Your task to perform on an android device: Go to Android settings Image 0: 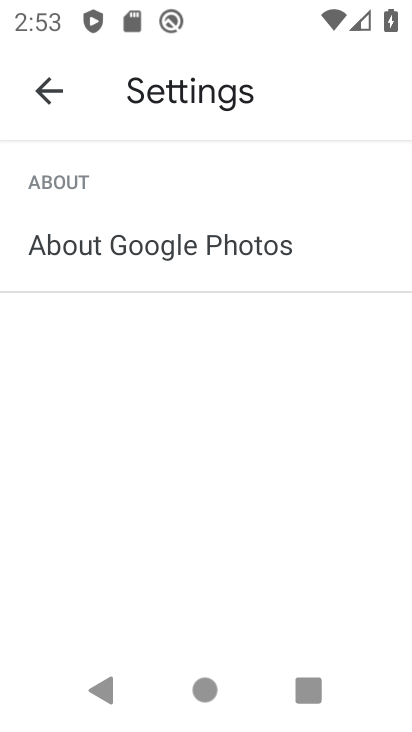
Step 0: press back button
Your task to perform on an android device: Go to Android settings Image 1: 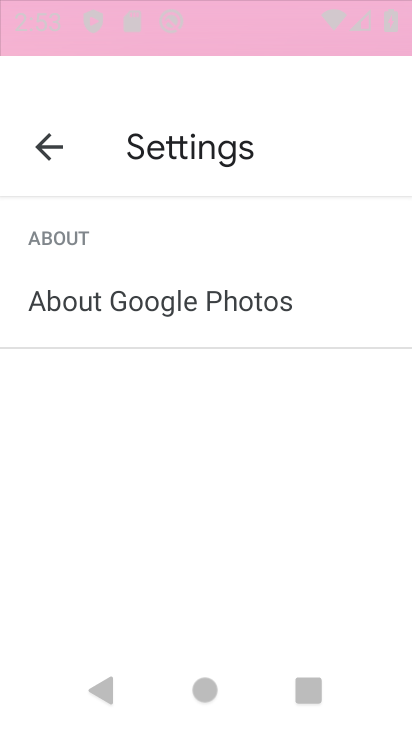
Step 1: press back button
Your task to perform on an android device: Go to Android settings Image 2: 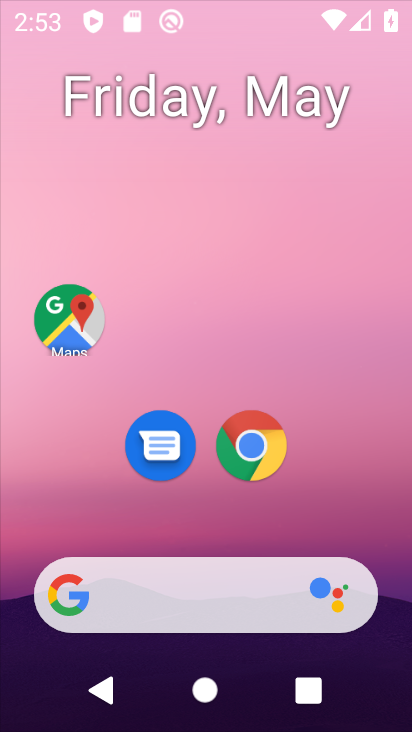
Step 2: press back button
Your task to perform on an android device: Go to Android settings Image 3: 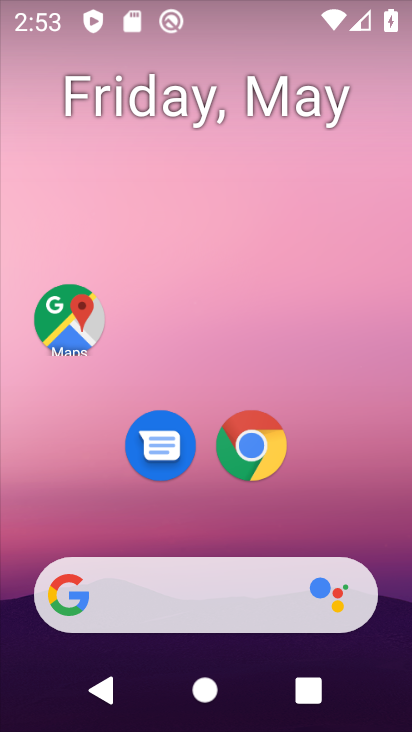
Step 3: drag from (274, 610) to (135, 37)
Your task to perform on an android device: Go to Android settings Image 4: 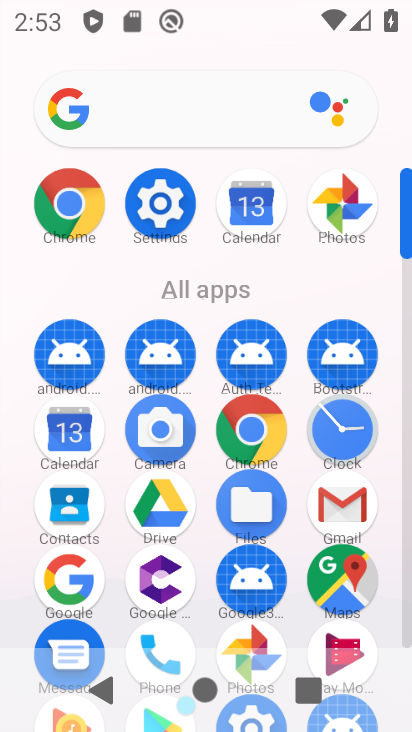
Step 4: click (151, 206)
Your task to perform on an android device: Go to Android settings Image 5: 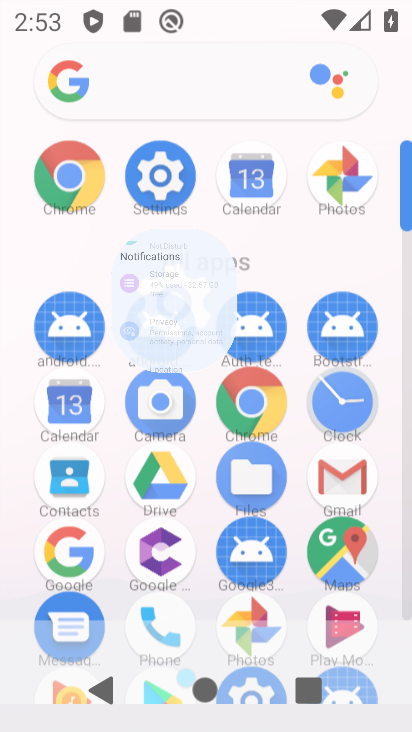
Step 5: click (150, 199)
Your task to perform on an android device: Go to Android settings Image 6: 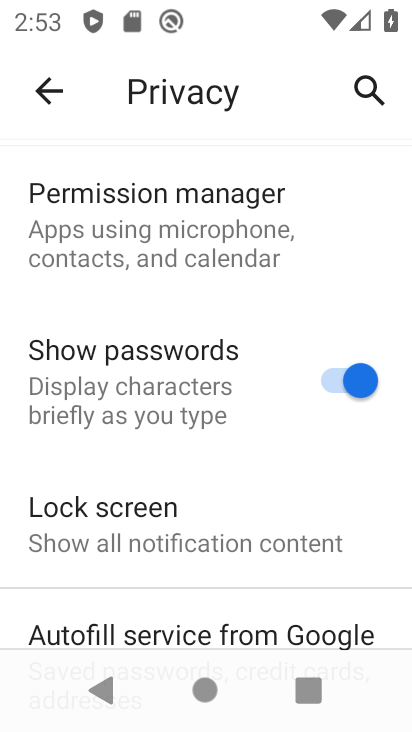
Step 6: drag from (129, 528) to (134, 130)
Your task to perform on an android device: Go to Android settings Image 7: 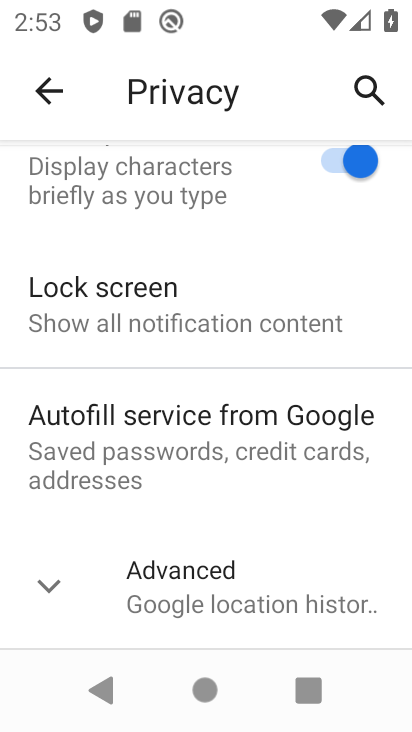
Step 7: click (40, 93)
Your task to perform on an android device: Go to Android settings Image 8: 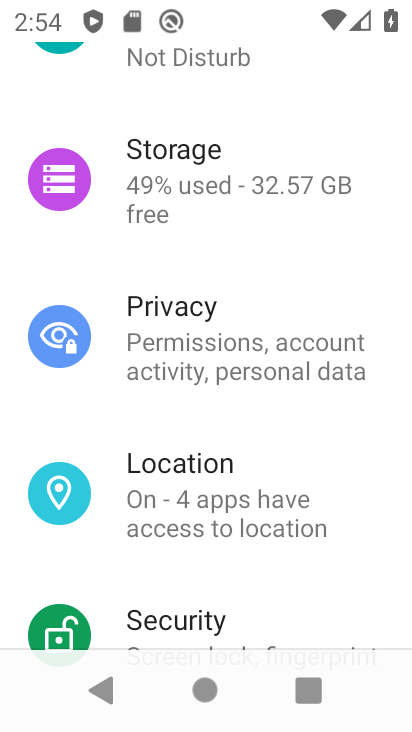
Step 8: drag from (223, 522) to (250, 48)
Your task to perform on an android device: Go to Android settings Image 9: 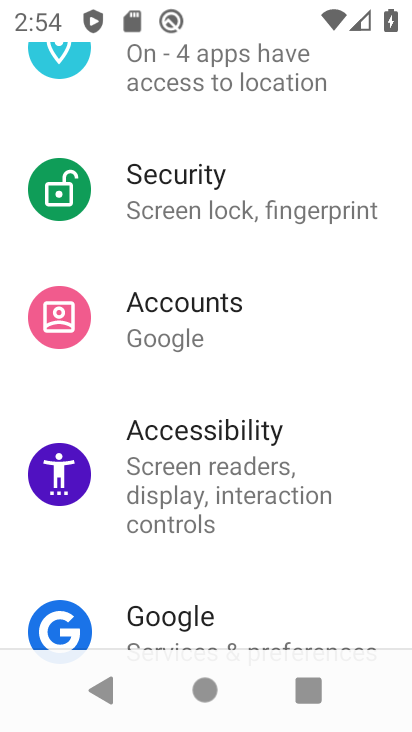
Step 9: drag from (275, 455) to (263, 53)
Your task to perform on an android device: Go to Android settings Image 10: 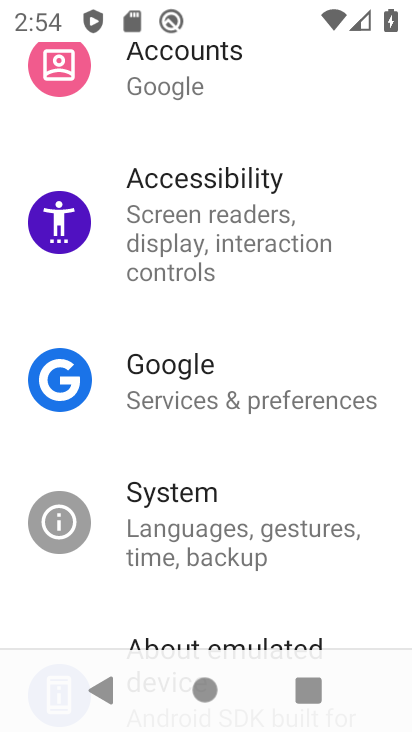
Step 10: drag from (192, 435) to (189, 130)
Your task to perform on an android device: Go to Android settings Image 11: 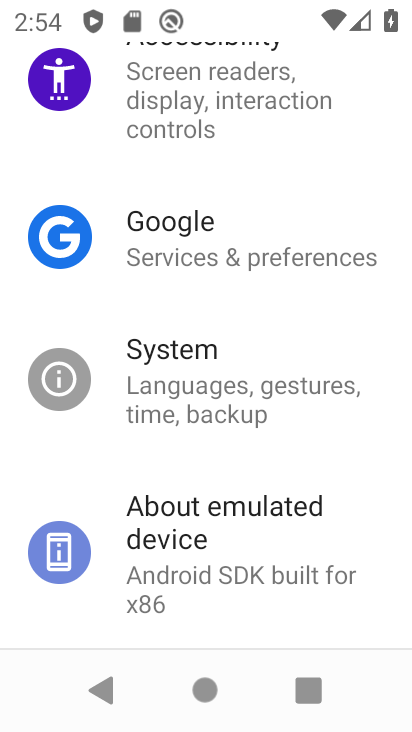
Step 11: drag from (238, 344) to (183, 93)
Your task to perform on an android device: Go to Android settings Image 12: 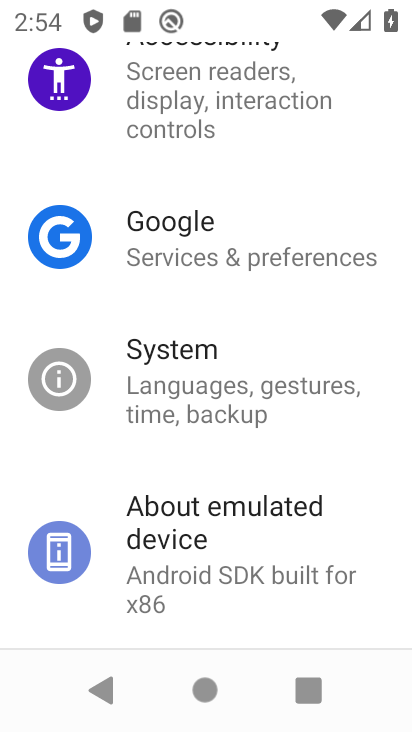
Step 12: click (143, 574)
Your task to perform on an android device: Go to Android settings Image 13: 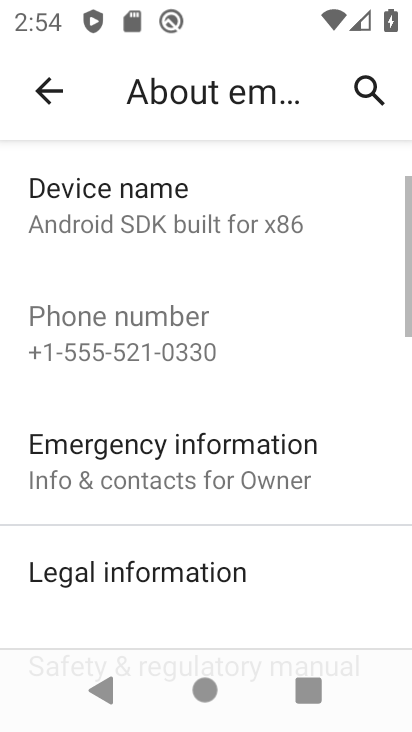
Step 13: task complete